Your task to perform on an android device: Open Maps and search for coffee Image 0: 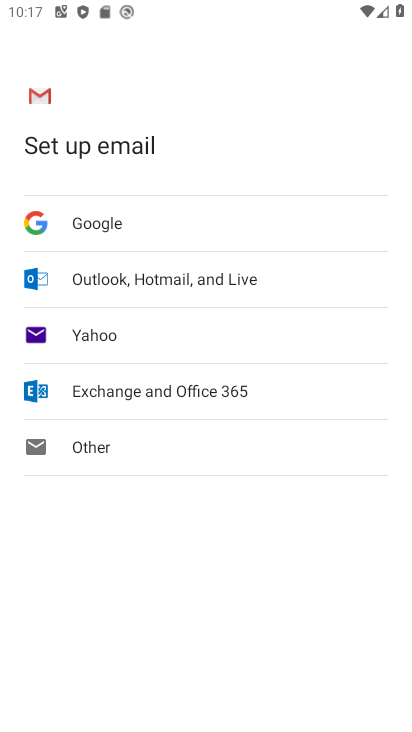
Step 0: press home button
Your task to perform on an android device: Open Maps and search for coffee Image 1: 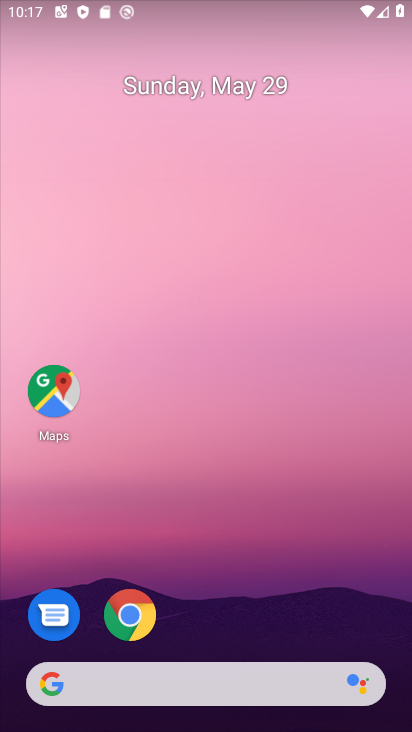
Step 1: drag from (225, 655) to (264, 54)
Your task to perform on an android device: Open Maps and search for coffee Image 2: 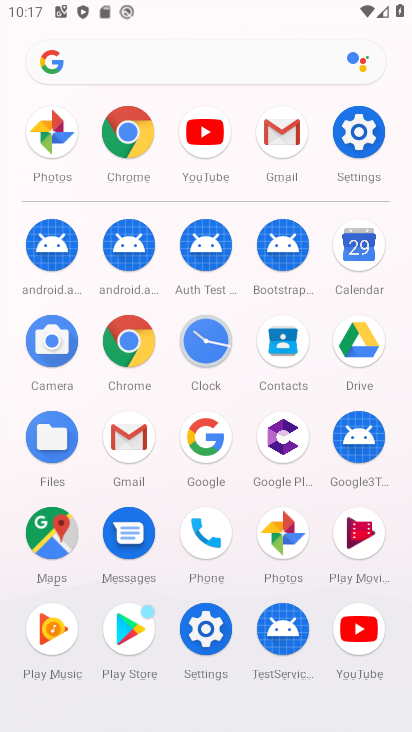
Step 2: click (36, 537)
Your task to perform on an android device: Open Maps and search for coffee Image 3: 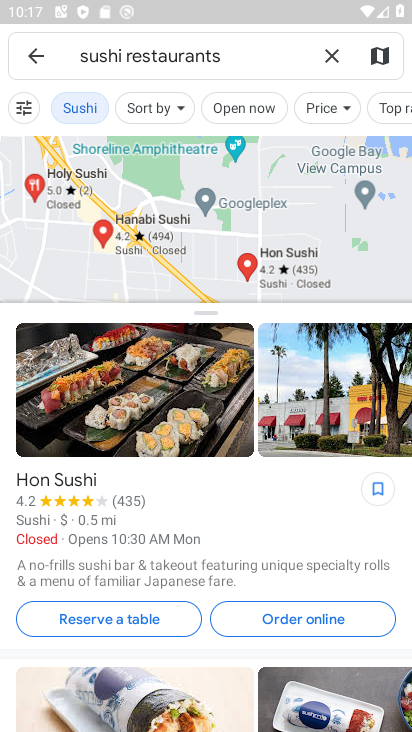
Step 3: click (330, 47)
Your task to perform on an android device: Open Maps and search for coffee Image 4: 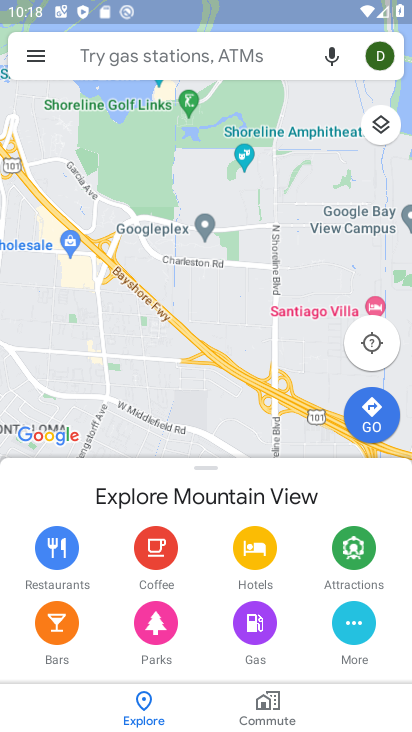
Step 4: click (191, 54)
Your task to perform on an android device: Open Maps and search for coffee Image 5: 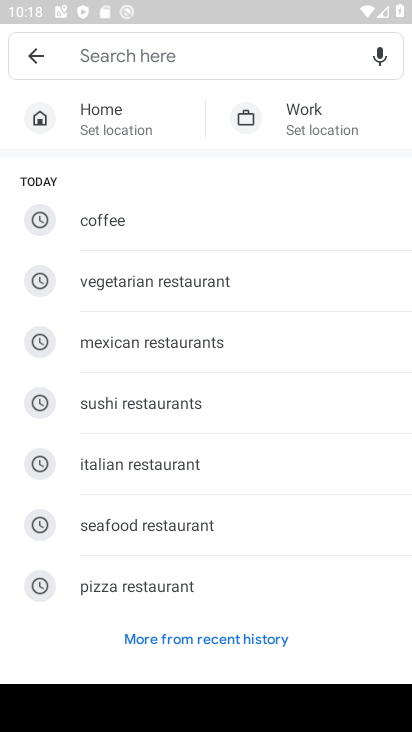
Step 5: click (102, 222)
Your task to perform on an android device: Open Maps and search for coffee Image 6: 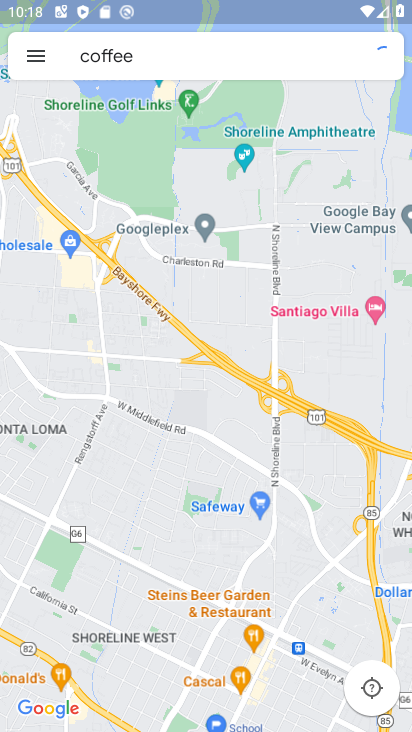
Step 6: task complete